Your task to perform on an android device: turn on priority inbox in the gmail app Image 0: 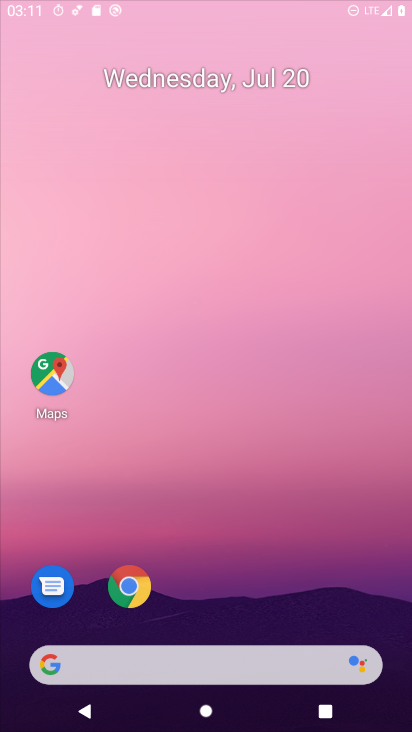
Step 0: click (199, 603)
Your task to perform on an android device: turn on priority inbox in the gmail app Image 1: 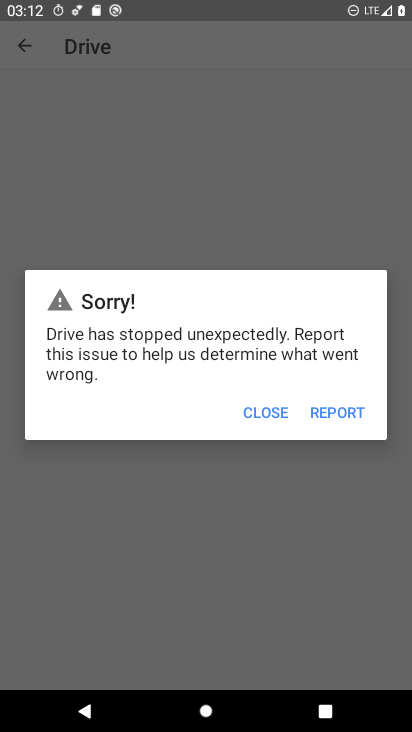
Step 1: press home button
Your task to perform on an android device: turn on priority inbox in the gmail app Image 2: 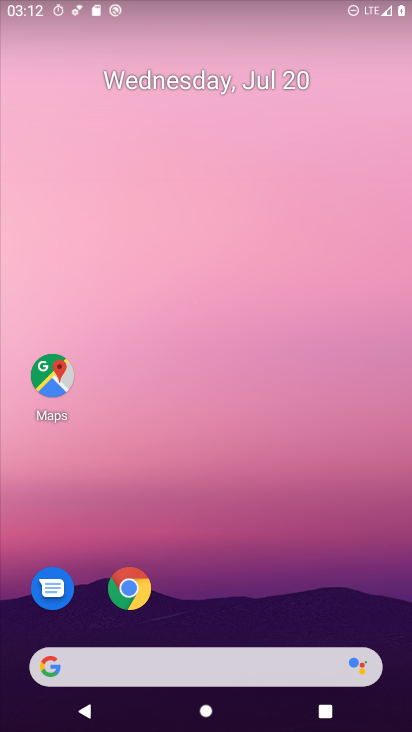
Step 2: drag from (235, 635) to (267, 15)
Your task to perform on an android device: turn on priority inbox in the gmail app Image 3: 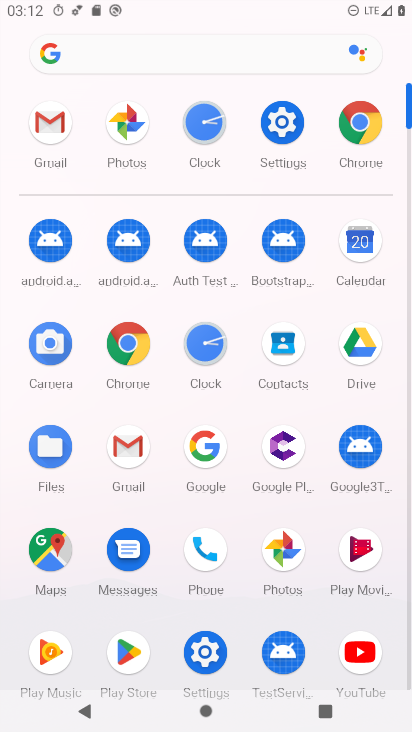
Step 3: click (125, 454)
Your task to perform on an android device: turn on priority inbox in the gmail app Image 4: 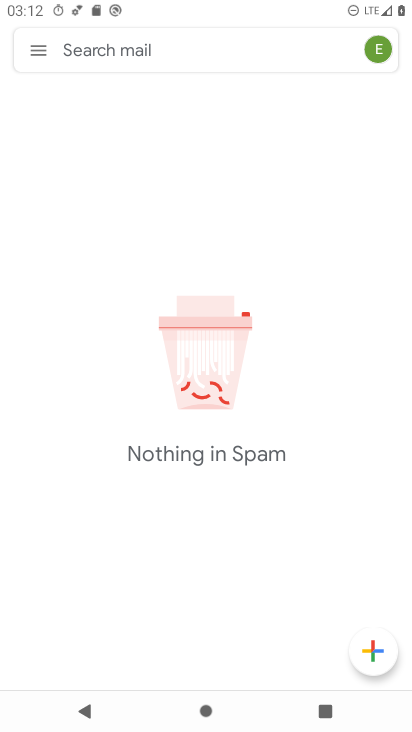
Step 4: click (33, 55)
Your task to perform on an android device: turn on priority inbox in the gmail app Image 5: 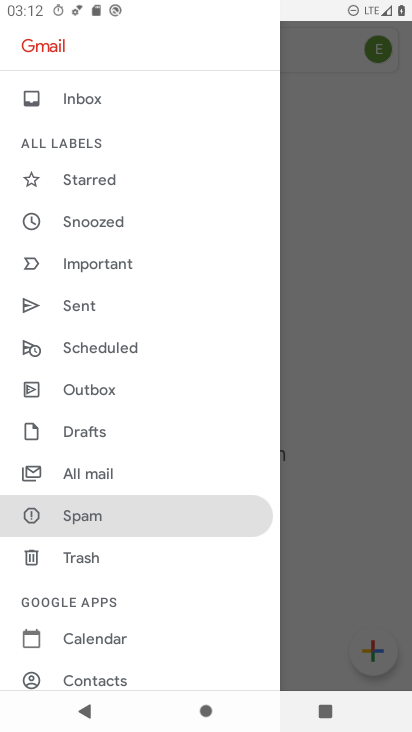
Step 5: drag from (63, 626) to (5, 170)
Your task to perform on an android device: turn on priority inbox in the gmail app Image 6: 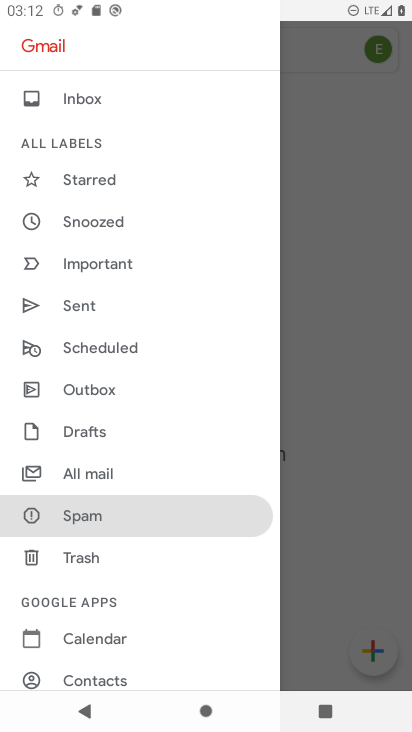
Step 6: drag from (91, 560) to (22, 53)
Your task to perform on an android device: turn on priority inbox in the gmail app Image 7: 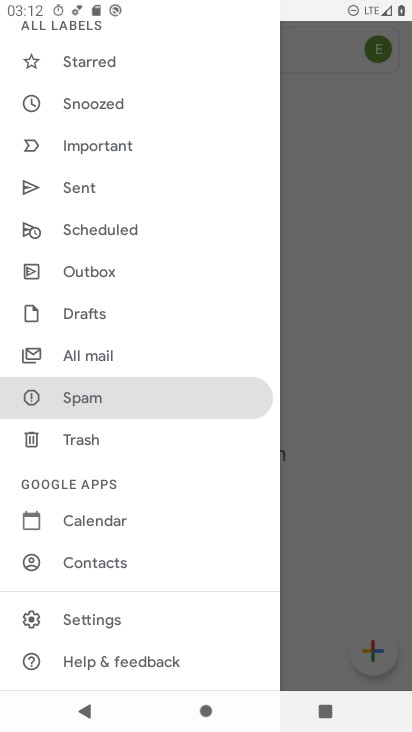
Step 7: click (66, 613)
Your task to perform on an android device: turn on priority inbox in the gmail app Image 8: 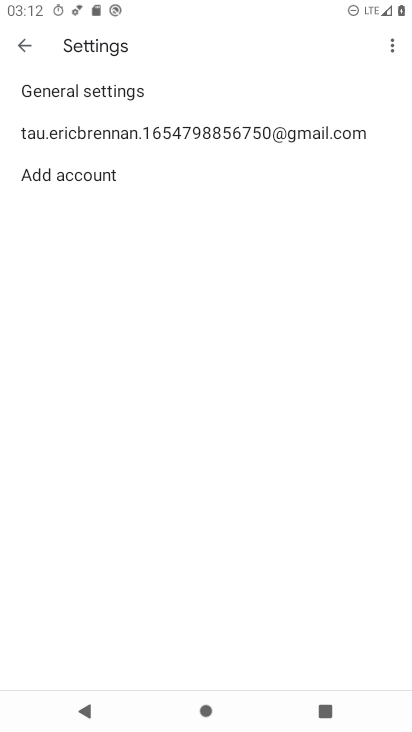
Step 8: click (114, 125)
Your task to perform on an android device: turn on priority inbox in the gmail app Image 9: 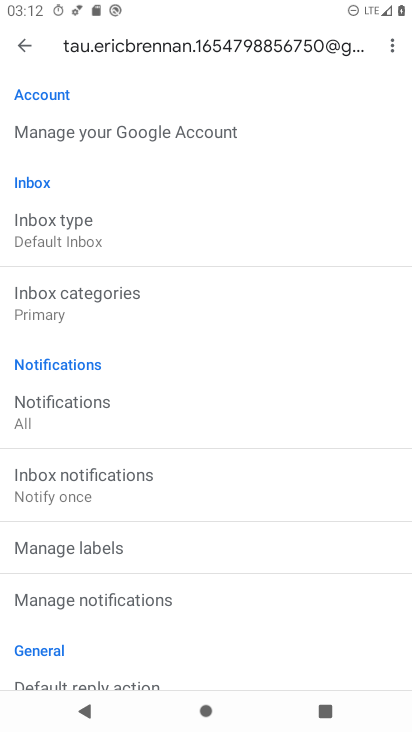
Step 9: click (50, 233)
Your task to perform on an android device: turn on priority inbox in the gmail app Image 10: 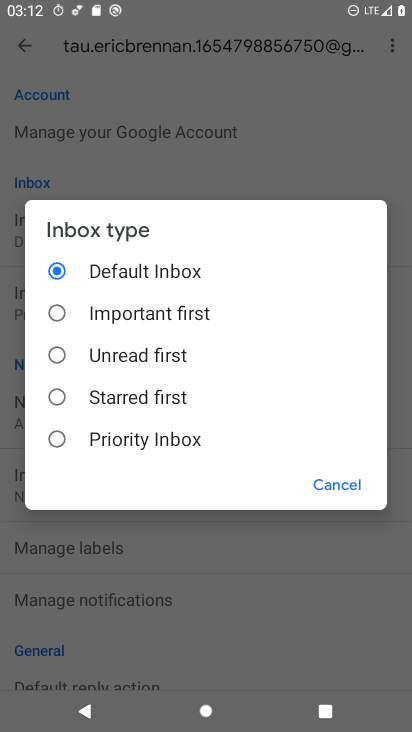
Step 10: click (67, 425)
Your task to perform on an android device: turn on priority inbox in the gmail app Image 11: 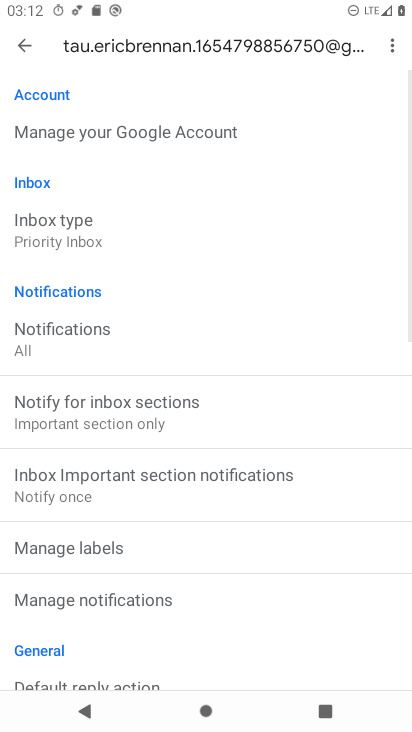
Step 11: task complete